Your task to perform on an android device: Go to accessibility settings Image 0: 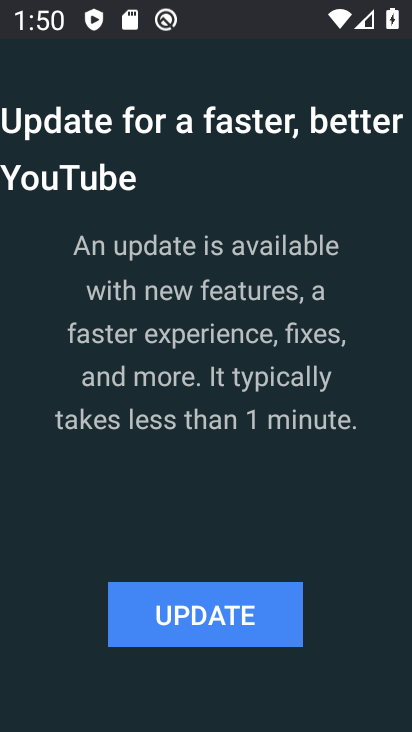
Step 0: click (234, 617)
Your task to perform on an android device: Go to accessibility settings Image 1: 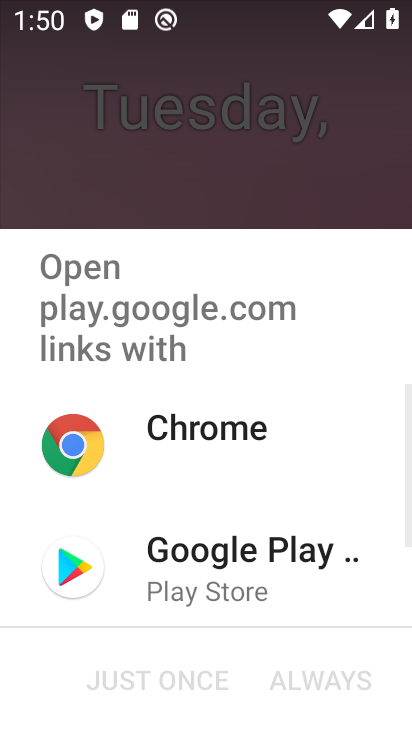
Step 1: press back button
Your task to perform on an android device: Go to accessibility settings Image 2: 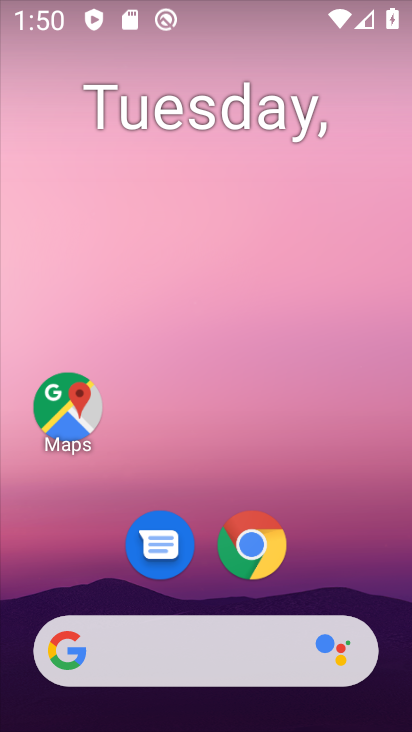
Step 2: press home button
Your task to perform on an android device: Go to accessibility settings Image 3: 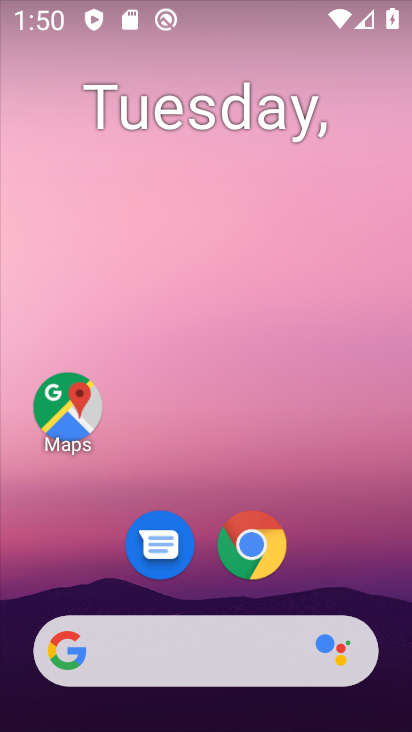
Step 3: drag from (347, 519) to (275, 0)
Your task to perform on an android device: Go to accessibility settings Image 4: 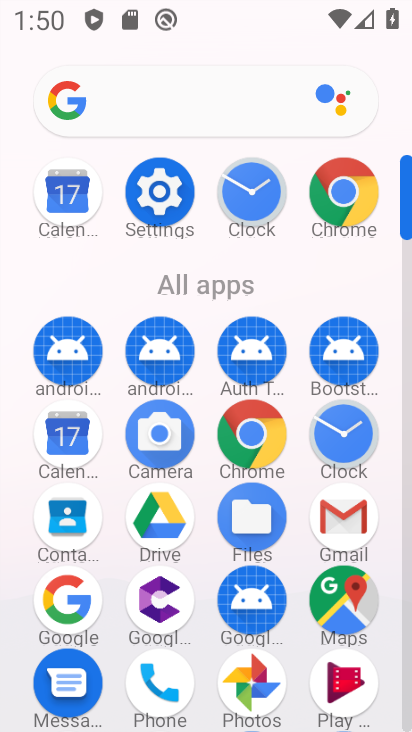
Step 4: click (162, 190)
Your task to perform on an android device: Go to accessibility settings Image 5: 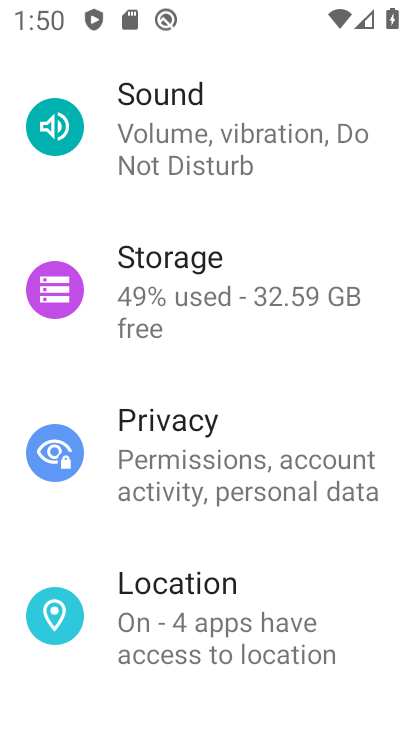
Step 5: drag from (268, 571) to (234, 156)
Your task to perform on an android device: Go to accessibility settings Image 6: 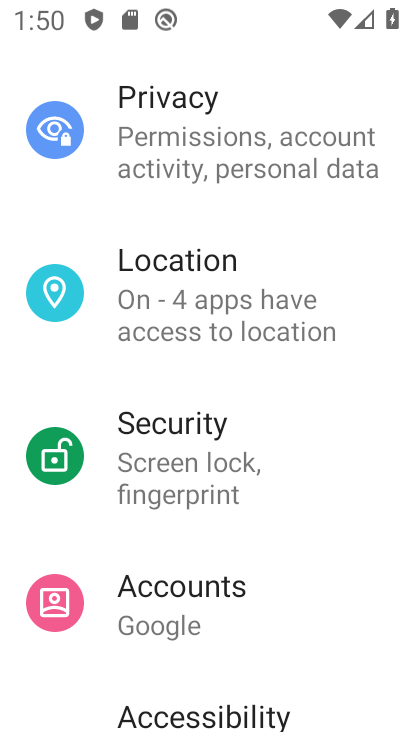
Step 6: drag from (217, 576) to (214, 208)
Your task to perform on an android device: Go to accessibility settings Image 7: 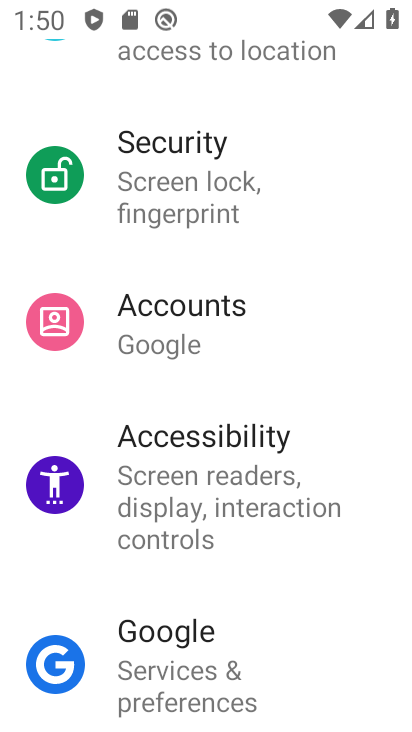
Step 7: drag from (264, 632) to (268, 115)
Your task to perform on an android device: Go to accessibility settings Image 8: 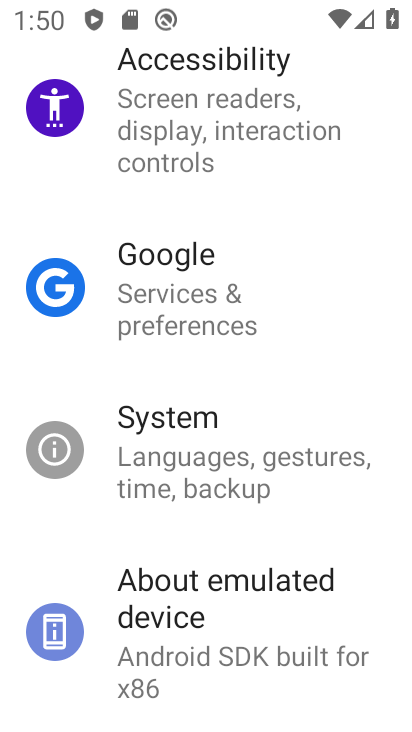
Step 8: drag from (256, 514) to (263, 74)
Your task to perform on an android device: Go to accessibility settings Image 9: 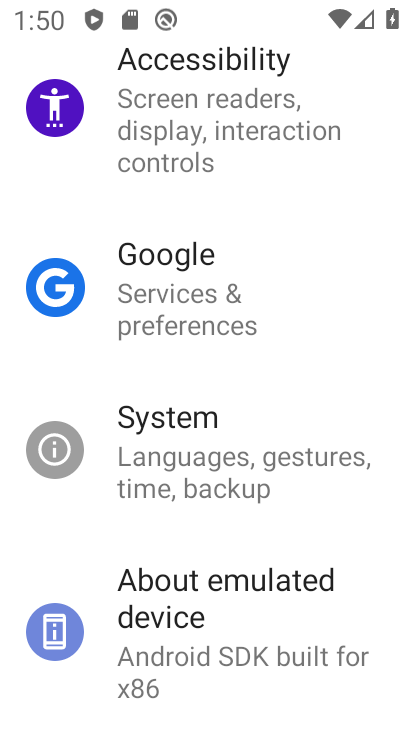
Step 9: click (216, 103)
Your task to perform on an android device: Go to accessibility settings Image 10: 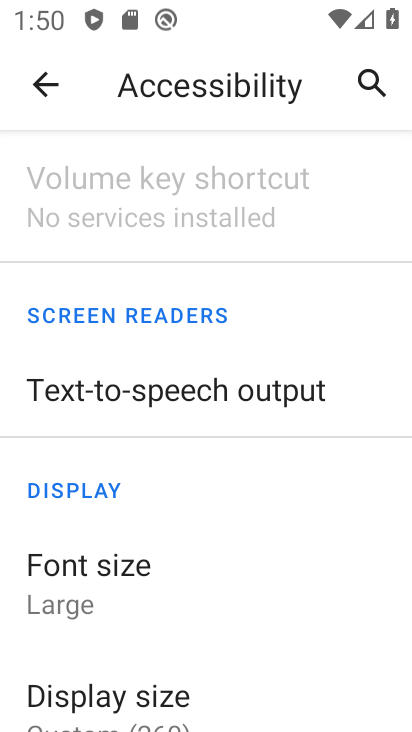
Step 10: task complete